Your task to perform on an android device: turn off translation in the chrome app Image 0: 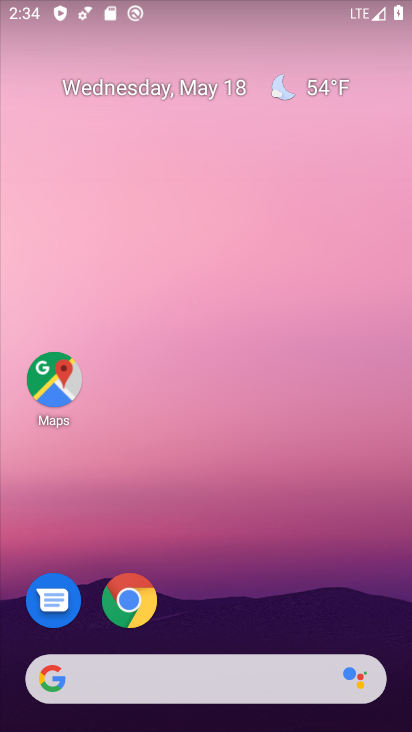
Step 0: click (131, 589)
Your task to perform on an android device: turn off translation in the chrome app Image 1: 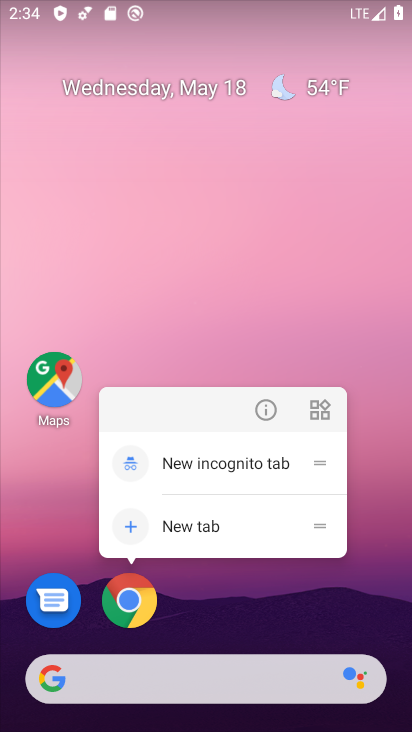
Step 1: click (131, 594)
Your task to perform on an android device: turn off translation in the chrome app Image 2: 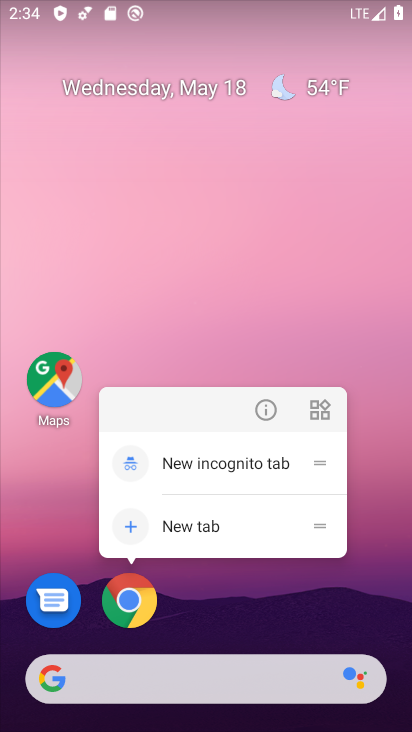
Step 2: click (131, 602)
Your task to perform on an android device: turn off translation in the chrome app Image 3: 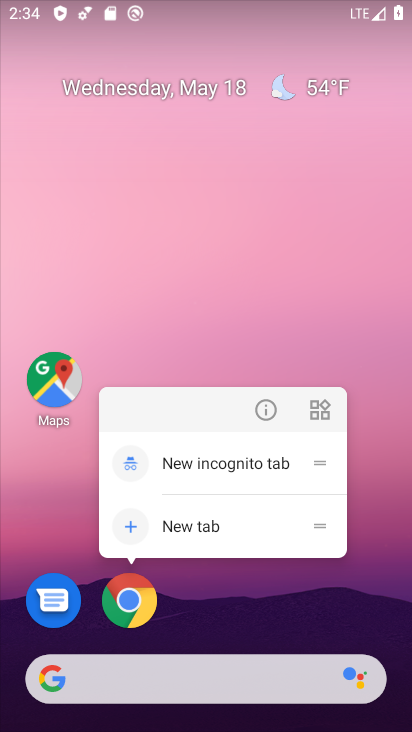
Step 3: click (125, 621)
Your task to perform on an android device: turn off translation in the chrome app Image 4: 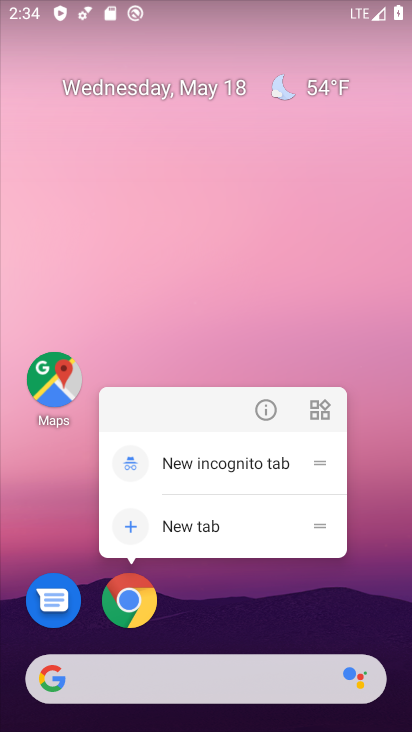
Step 4: click (135, 597)
Your task to perform on an android device: turn off translation in the chrome app Image 5: 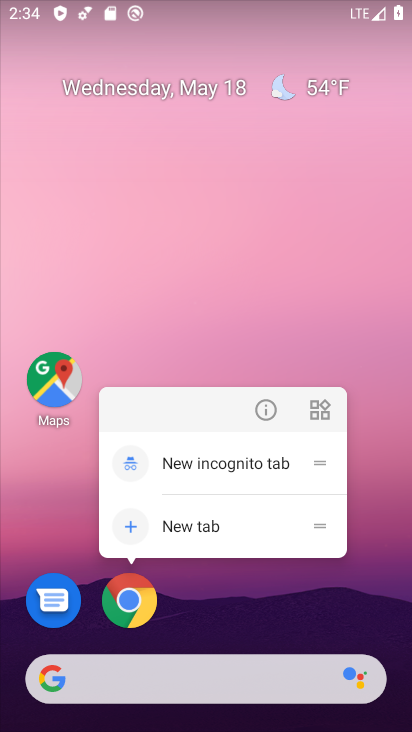
Step 5: click (136, 606)
Your task to perform on an android device: turn off translation in the chrome app Image 6: 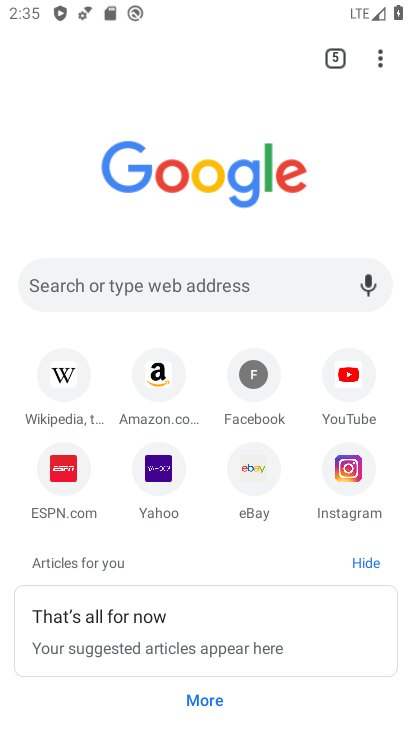
Step 6: drag from (378, 64) to (243, 509)
Your task to perform on an android device: turn off translation in the chrome app Image 7: 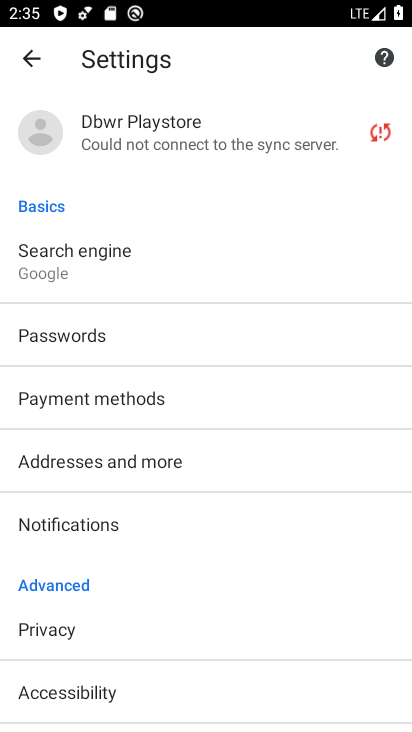
Step 7: drag from (152, 615) to (299, 220)
Your task to perform on an android device: turn off translation in the chrome app Image 8: 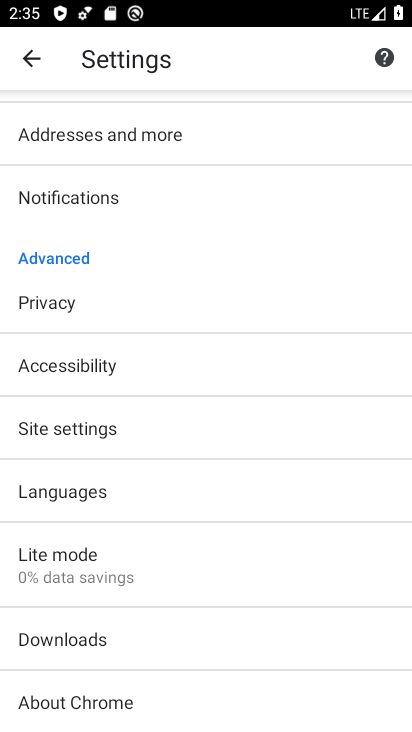
Step 8: click (81, 483)
Your task to perform on an android device: turn off translation in the chrome app Image 9: 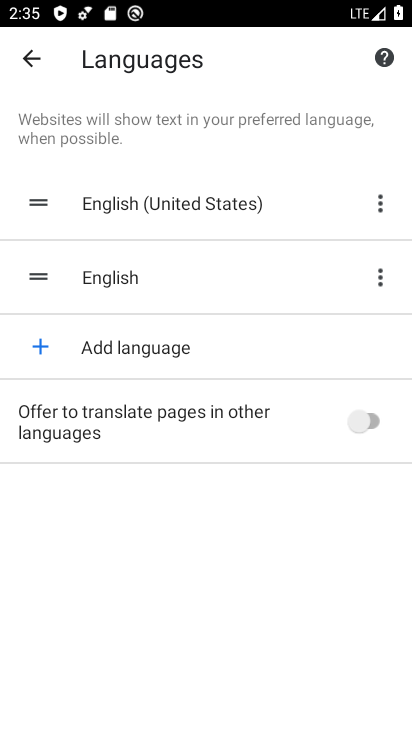
Step 9: task complete